Your task to perform on an android device: toggle priority inbox in the gmail app Image 0: 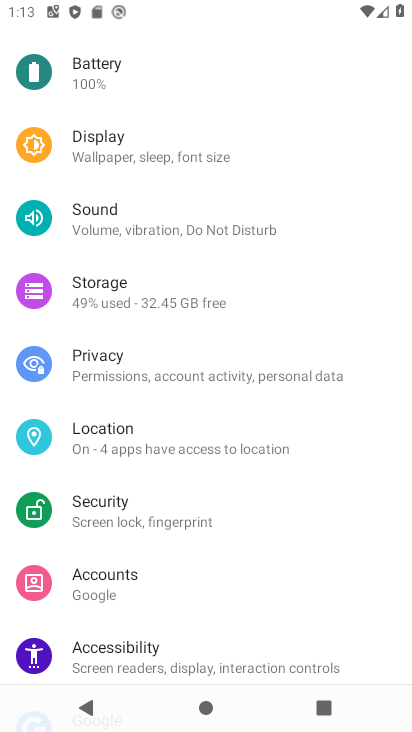
Step 0: press home button
Your task to perform on an android device: toggle priority inbox in the gmail app Image 1: 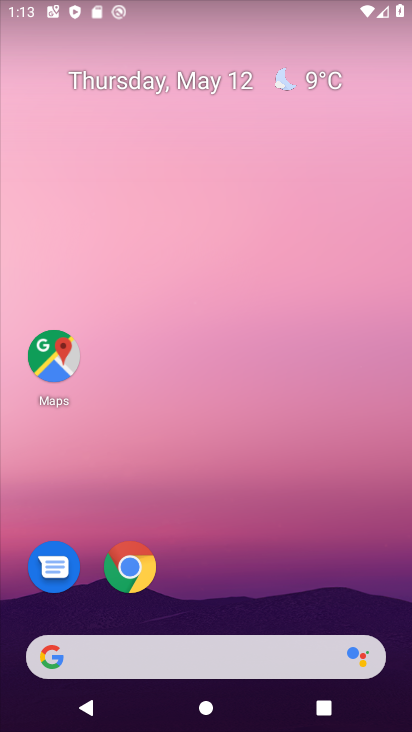
Step 1: drag from (224, 612) to (198, 175)
Your task to perform on an android device: toggle priority inbox in the gmail app Image 2: 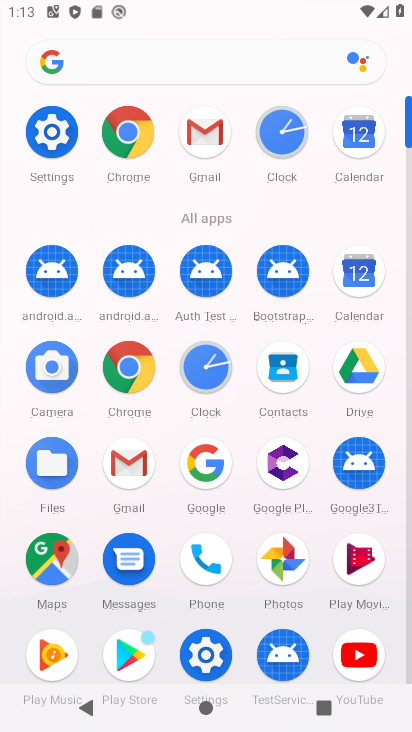
Step 2: click (202, 129)
Your task to perform on an android device: toggle priority inbox in the gmail app Image 3: 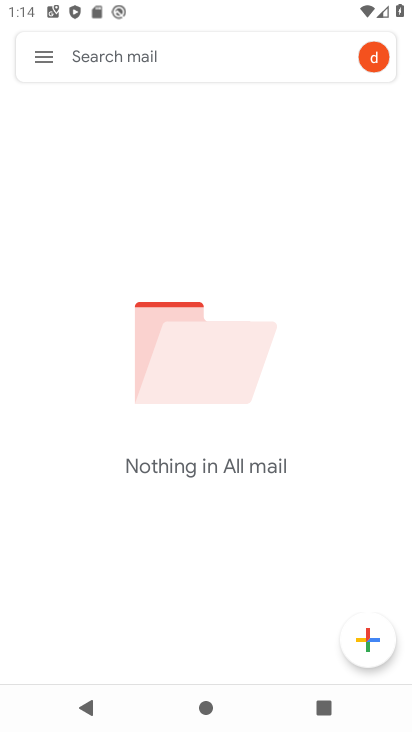
Step 3: click (43, 49)
Your task to perform on an android device: toggle priority inbox in the gmail app Image 4: 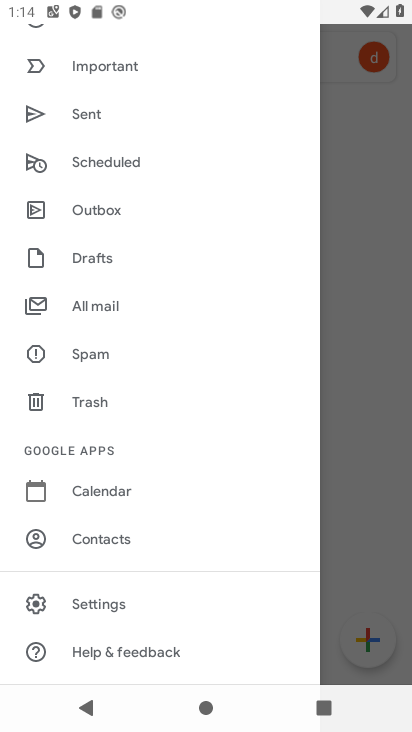
Step 4: click (126, 601)
Your task to perform on an android device: toggle priority inbox in the gmail app Image 5: 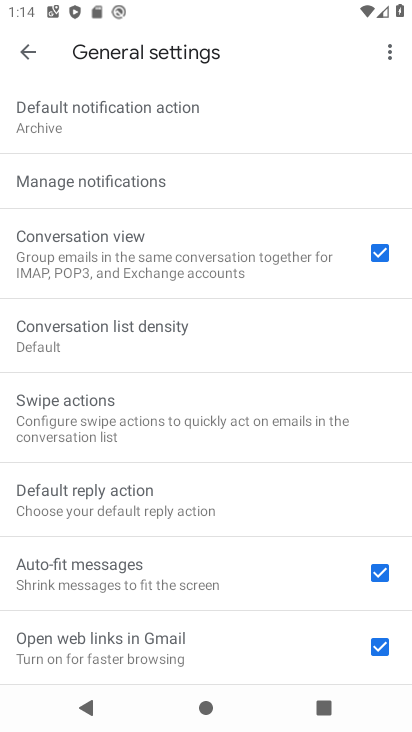
Step 5: click (29, 52)
Your task to perform on an android device: toggle priority inbox in the gmail app Image 6: 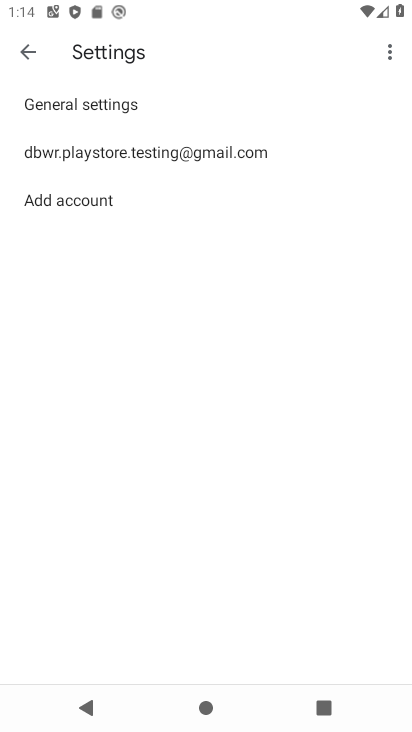
Step 6: click (183, 147)
Your task to perform on an android device: toggle priority inbox in the gmail app Image 7: 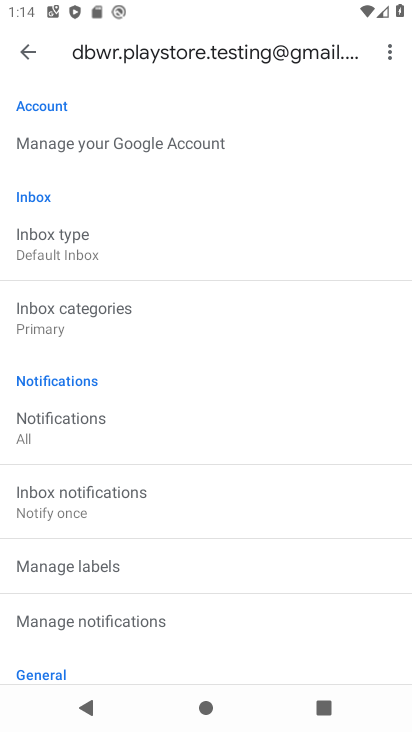
Step 7: click (85, 313)
Your task to perform on an android device: toggle priority inbox in the gmail app Image 8: 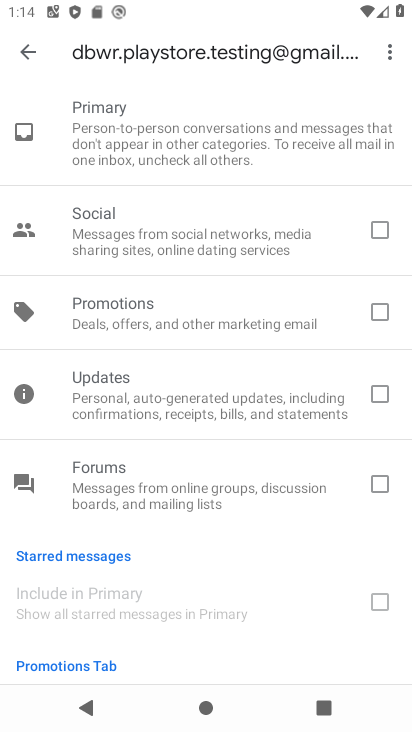
Step 8: click (24, 52)
Your task to perform on an android device: toggle priority inbox in the gmail app Image 9: 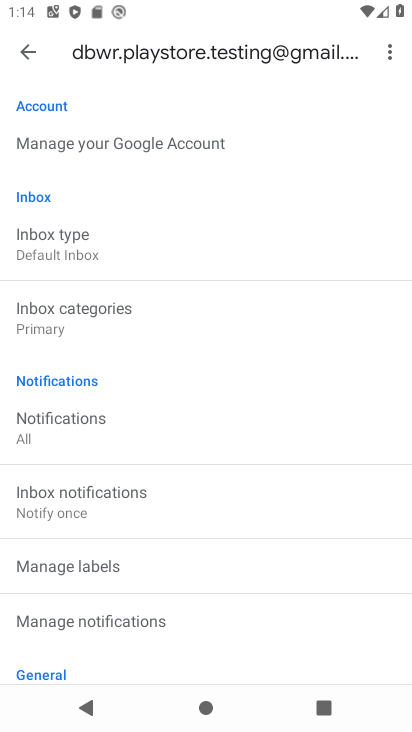
Step 9: click (86, 249)
Your task to perform on an android device: toggle priority inbox in the gmail app Image 10: 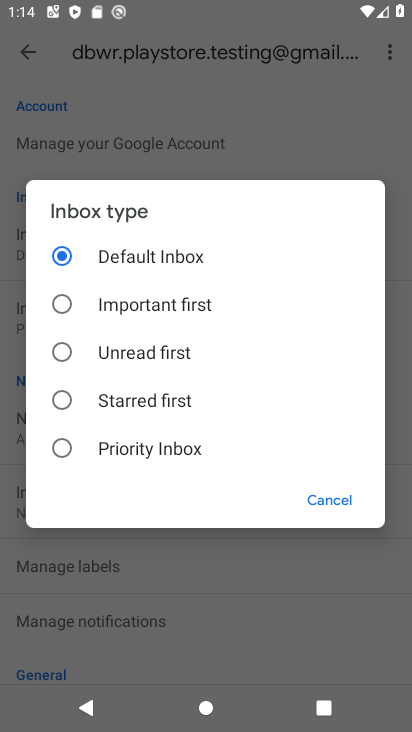
Step 10: click (62, 447)
Your task to perform on an android device: toggle priority inbox in the gmail app Image 11: 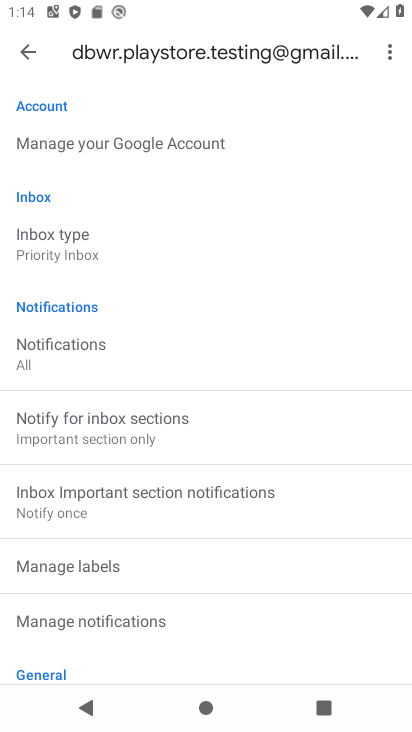
Step 11: task complete